Your task to perform on an android device: refresh tabs in the chrome app Image 0: 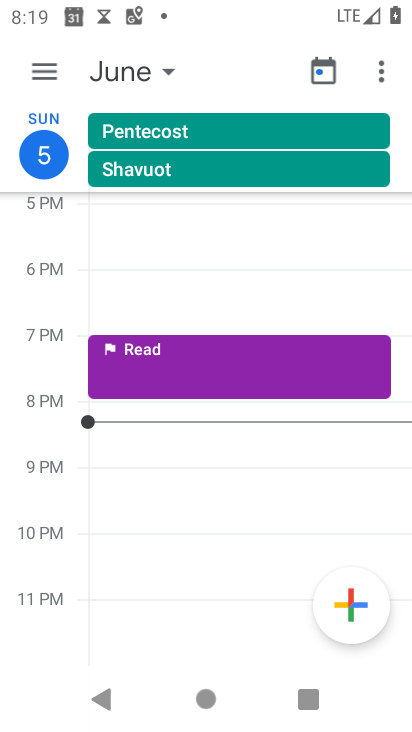
Step 0: press home button
Your task to perform on an android device: refresh tabs in the chrome app Image 1: 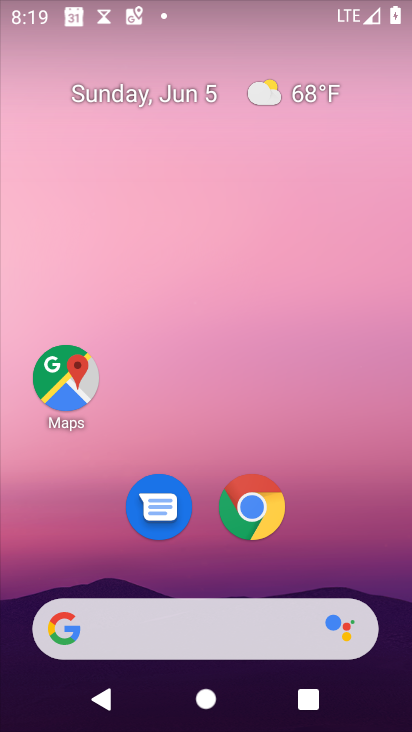
Step 1: click (259, 516)
Your task to perform on an android device: refresh tabs in the chrome app Image 2: 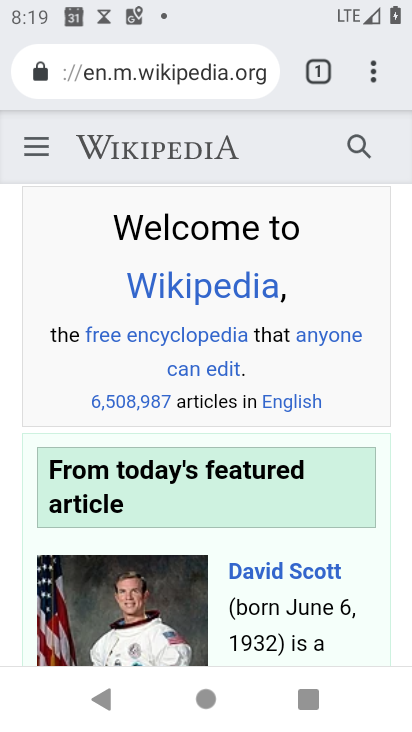
Step 2: click (371, 72)
Your task to perform on an android device: refresh tabs in the chrome app Image 3: 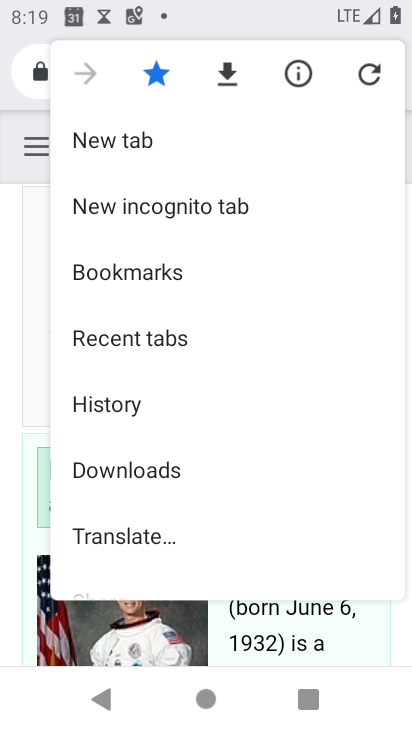
Step 3: click (370, 68)
Your task to perform on an android device: refresh tabs in the chrome app Image 4: 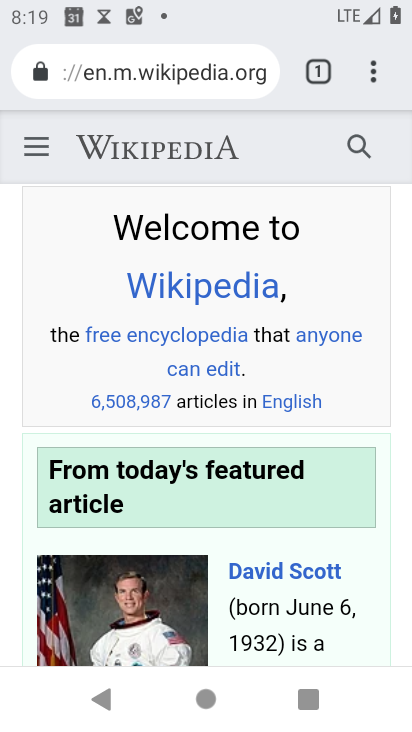
Step 4: task complete